Your task to perform on an android device: turn off picture-in-picture Image 0: 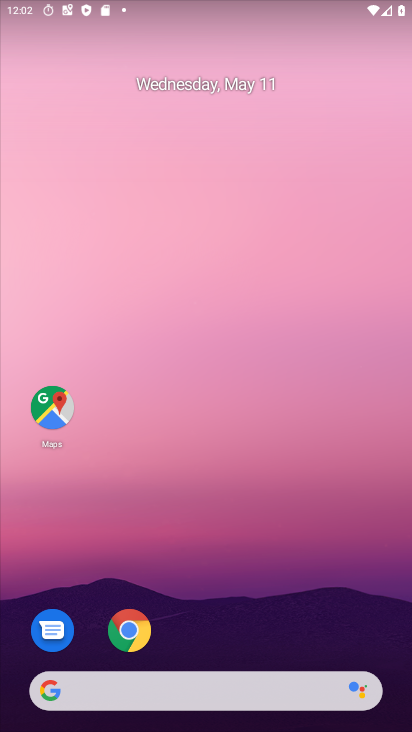
Step 0: click (132, 629)
Your task to perform on an android device: turn off picture-in-picture Image 1: 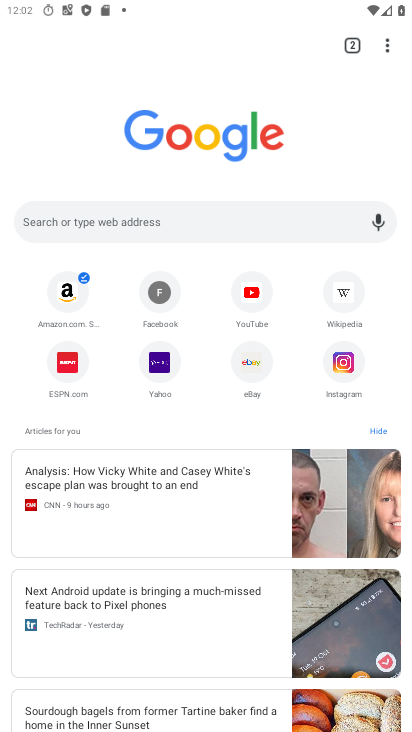
Step 1: press home button
Your task to perform on an android device: turn off picture-in-picture Image 2: 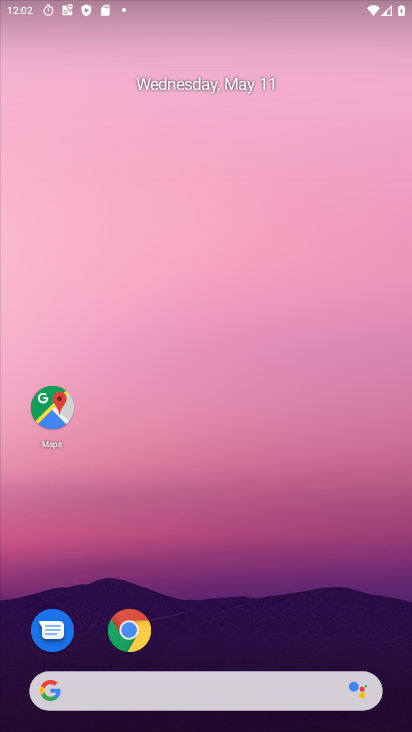
Step 2: click (130, 632)
Your task to perform on an android device: turn off picture-in-picture Image 3: 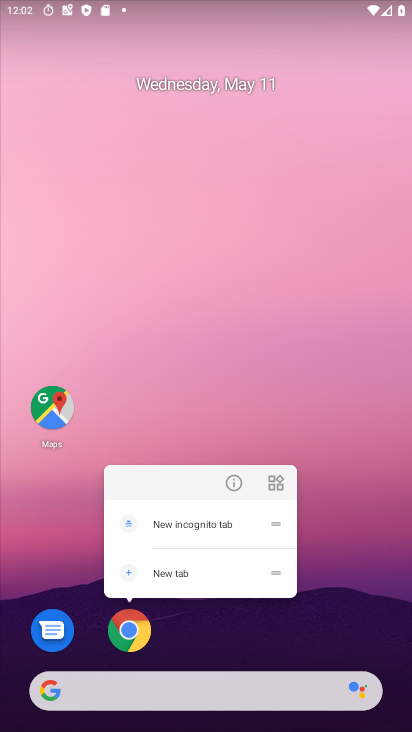
Step 3: click (236, 479)
Your task to perform on an android device: turn off picture-in-picture Image 4: 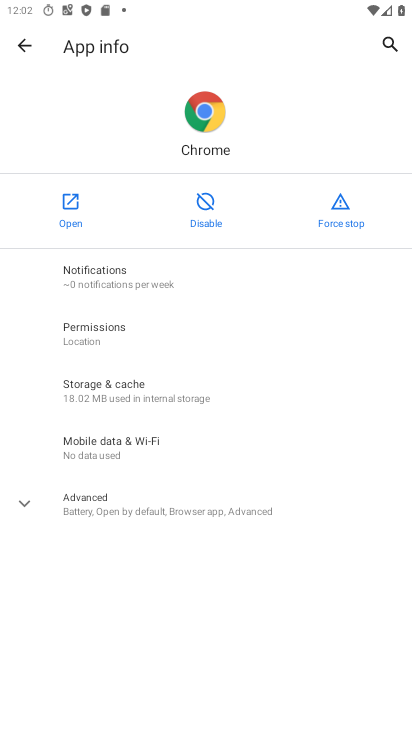
Step 4: drag from (268, 540) to (304, 178)
Your task to perform on an android device: turn off picture-in-picture Image 5: 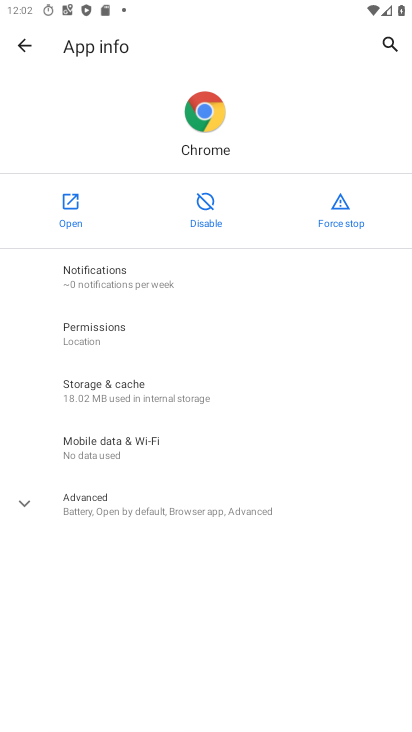
Step 5: click (123, 498)
Your task to perform on an android device: turn off picture-in-picture Image 6: 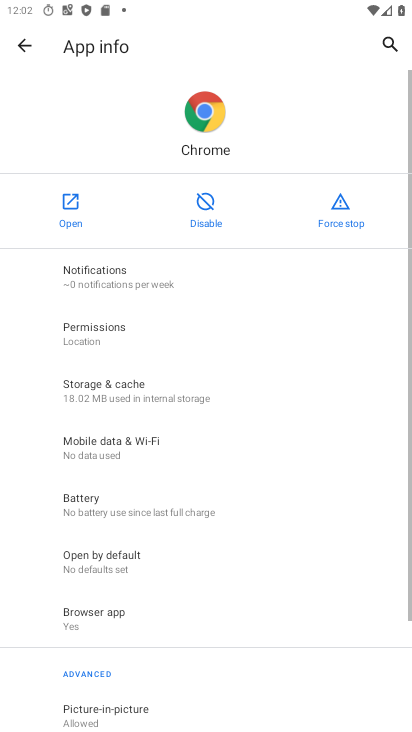
Step 6: drag from (233, 639) to (305, 55)
Your task to perform on an android device: turn off picture-in-picture Image 7: 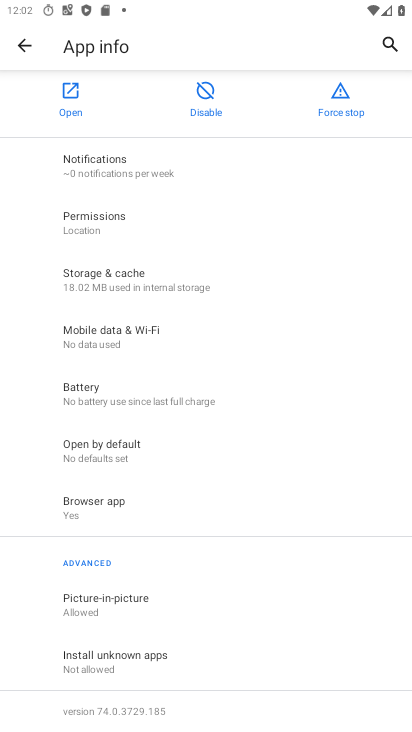
Step 7: click (129, 591)
Your task to perform on an android device: turn off picture-in-picture Image 8: 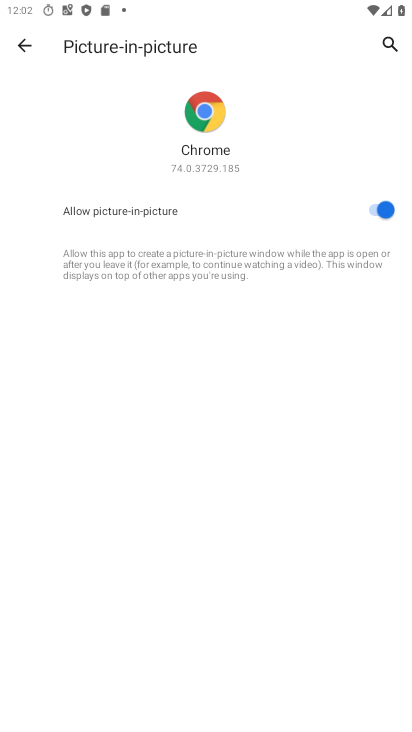
Step 8: click (369, 207)
Your task to perform on an android device: turn off picture-in-picture Image 9: 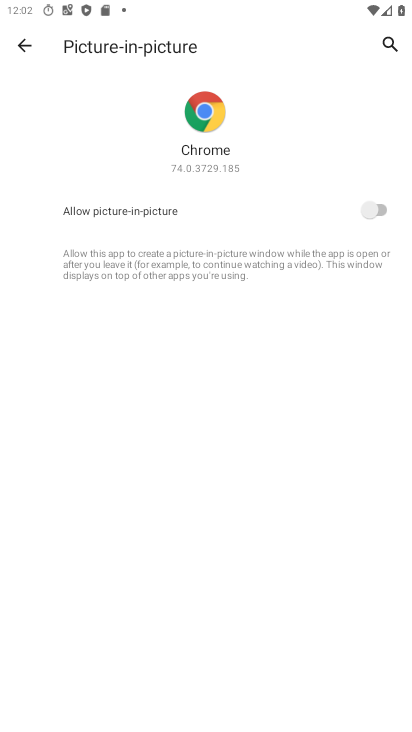
Step 9: task complete